Your task to perform on an android device: Open Chrome and go to settings Image 0: 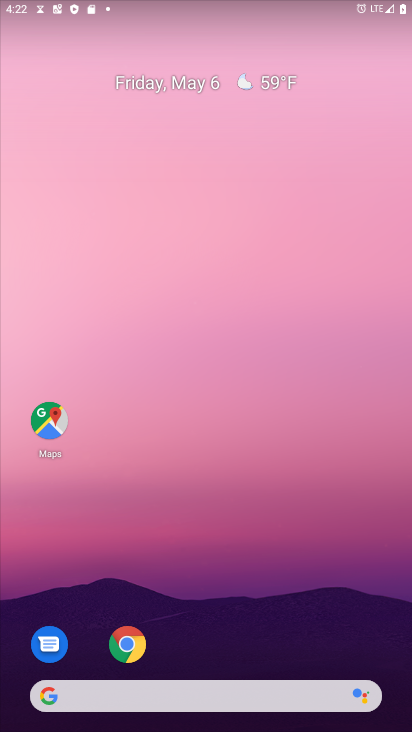
Step 0: click (128, 647)
Your task to perform on an android device: Open Chrome and go to settings Image 1: 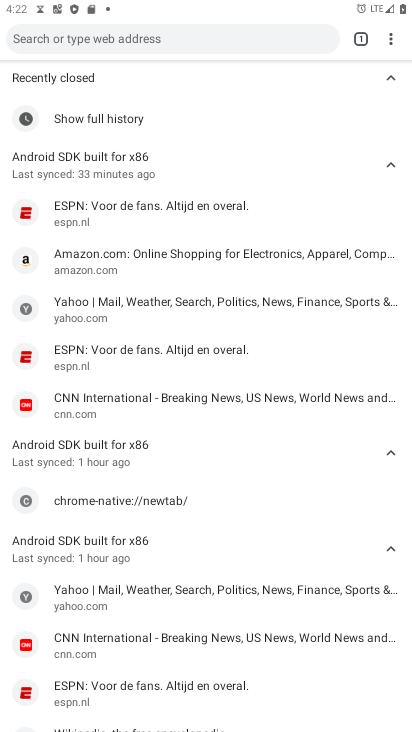
Step 1: click (393, 42)
Your task to perform on an android device: Open Chrome and go to settings Image 2: 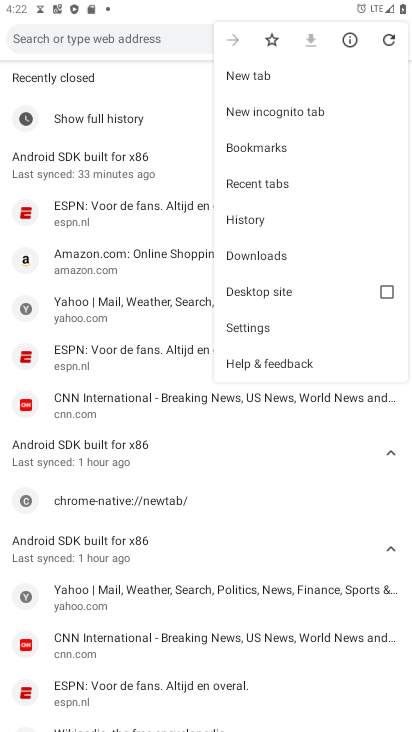
Step 2: click (260, 332)
Your task to perform on an android device: Open Chrome and go to settings Image 3: 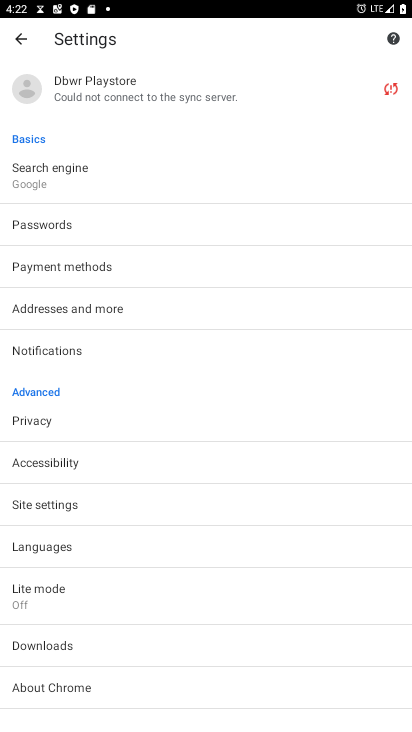
Step 3: task complete